Your task to perform on an android device: Open CNN.com Image 0: 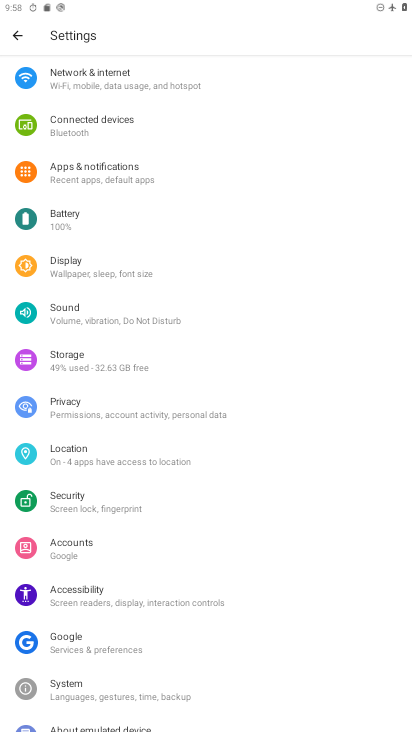
Step 0: press home button
Your task to perform on an android device: Open CNN.com Image 1: 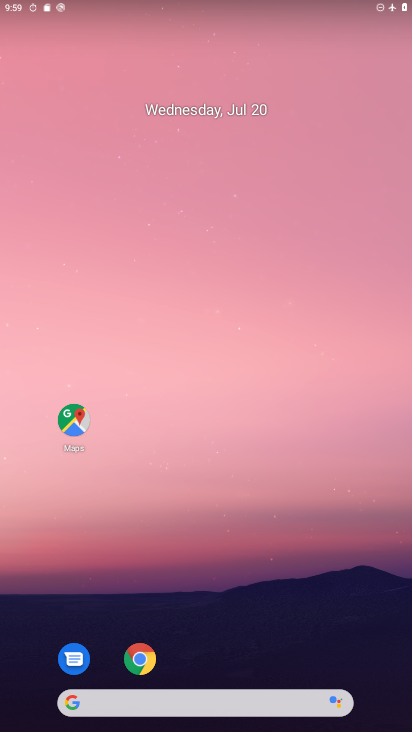
Step 1: drag from (346, 639) to (231, 65)
Your task to perform on an android device: Open CNN.com Image 2: 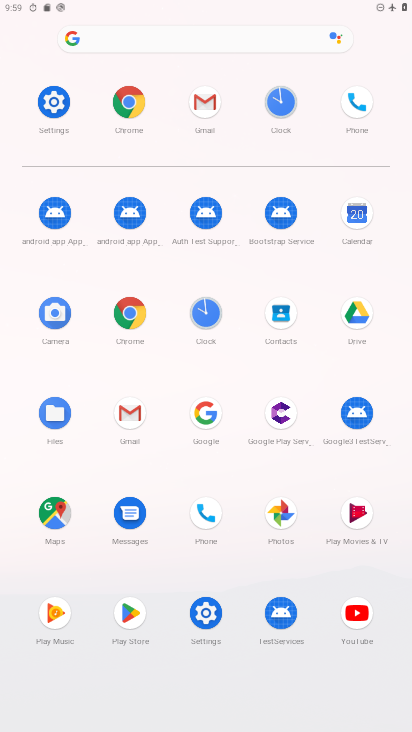
Step 2: click (124, 90)
Your task to perform on an android device: Open CNN.com Image 3: 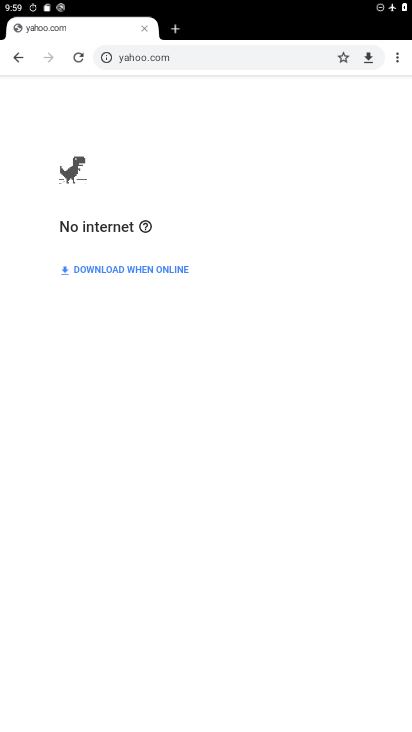
Step 3: click (158, 53)
Your task to perform on an android device: Open CNN.com Image 4: 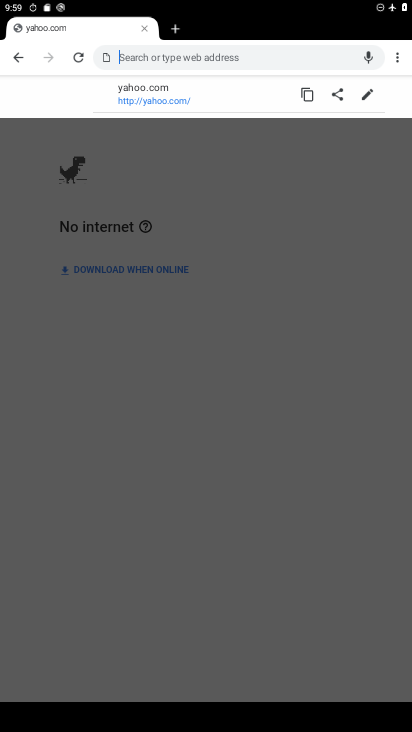
Step 4: type "cnn.com"
Your task to perform on an android device: Open CNN.com Image 5: 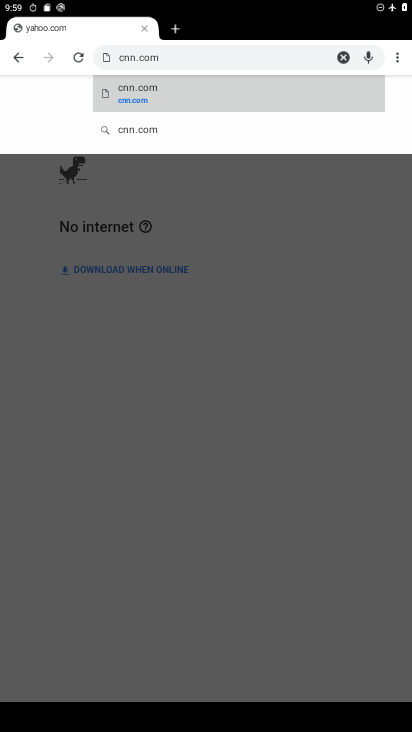
Step 5: click (249, 90)
Your task to perform on an android device: Open CNN.com Image 6: 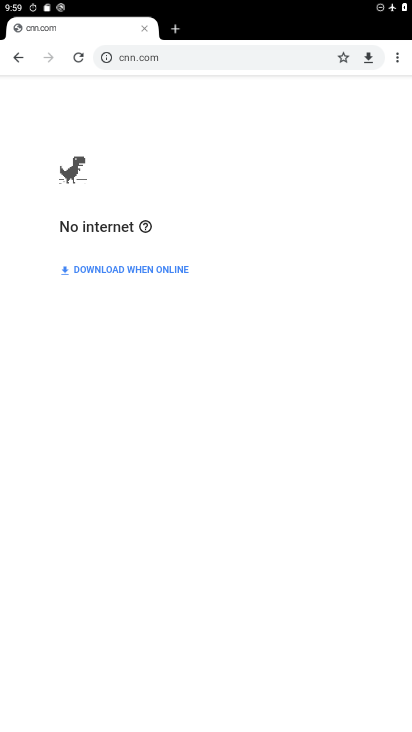
Step 6: task complete